Your task to perform on an android device: toggle data saver in the chrome app Image 0: 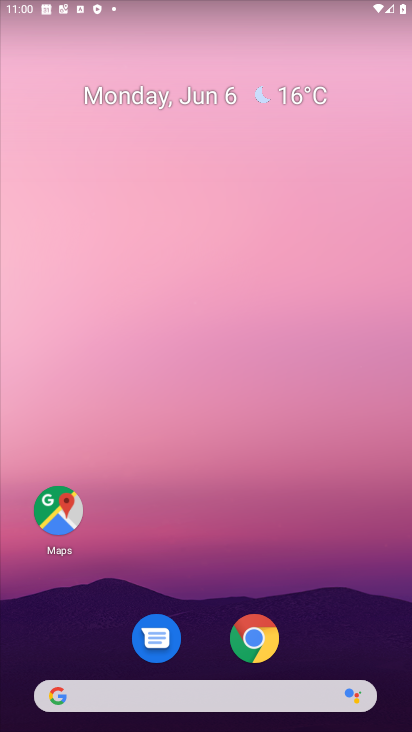
Step 0: drag from (230, 711) to (295, 224)
Your task to perform on an android device: toggle data saver in the chrome app Image 1: 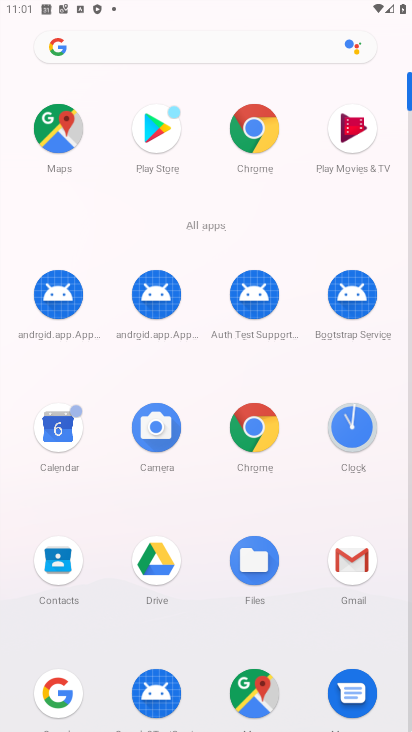
Step 1: click (244, 144)
Your task to perform on an android device: toggle data saver in the chrome app Image 2: 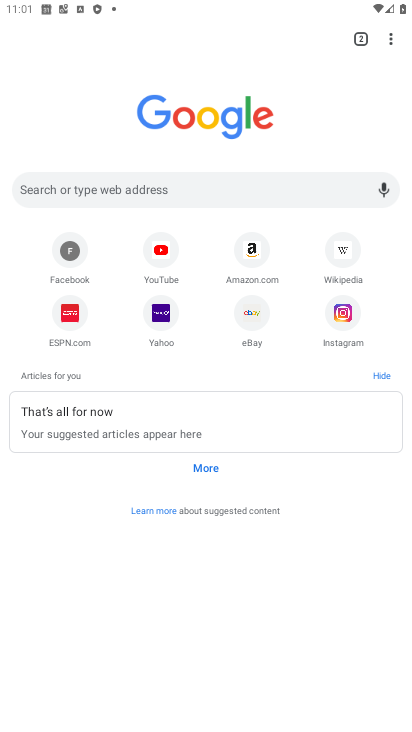
Step 2: click (386, 40)
Your task to perform on an android device: toggle data saver in the chrome app Image 3: 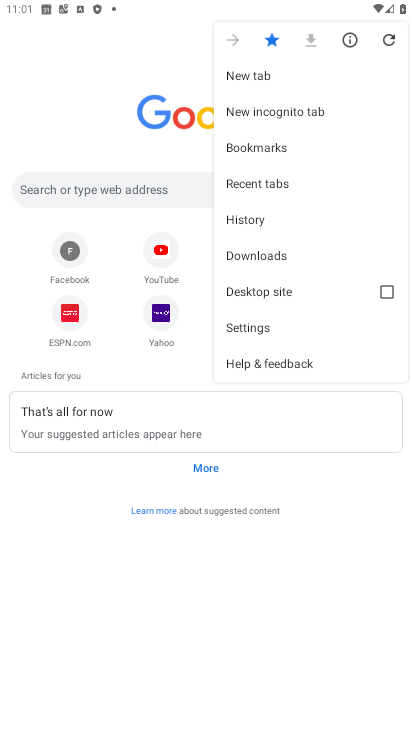
Step 3: click (255, 327)
Your task to perform on an android device: toggle data saver in the chrome app Image 4: 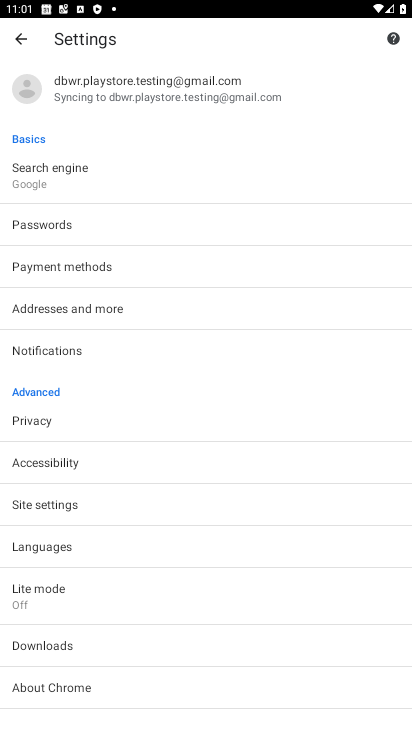
Step 4: click (54, 584)
Your task to perform on an android device: toggle data saver in the chrome app Image 5: 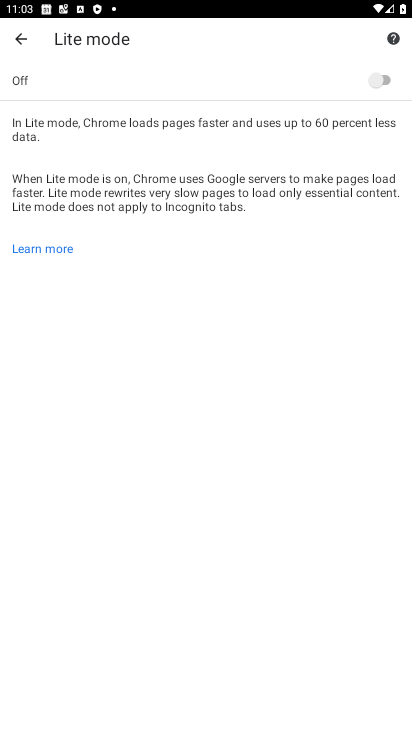
Step 5: task complete